Your task to perform on an android device: turn off priority inbox in the gmail app Image 0: 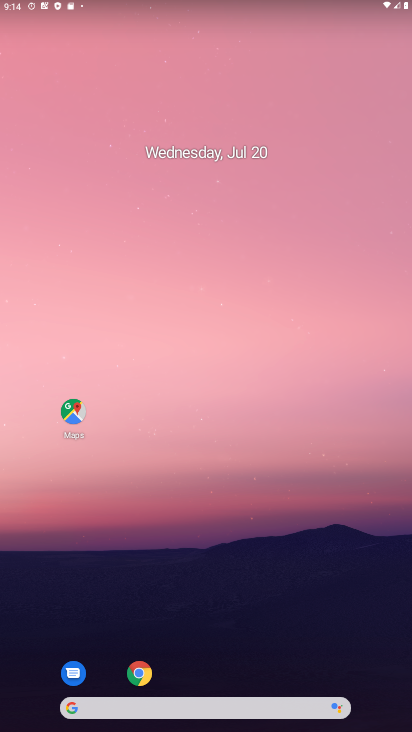
Step 0: drag from (337, 640) to (145, 4)
Your task to perform on an android device: turn off priority inbox in the gmail app Image 1: 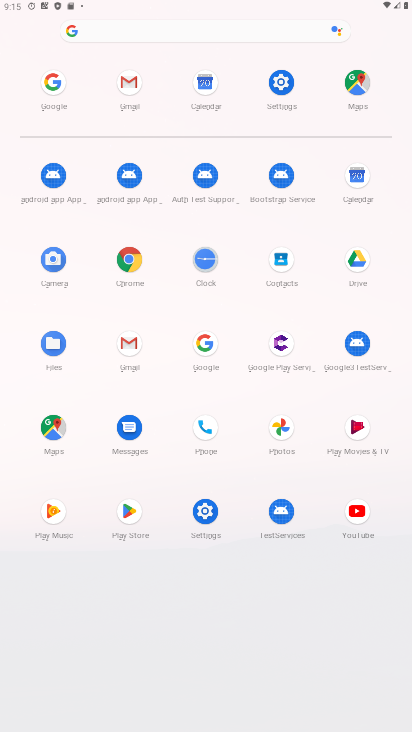
Step 1: click (126, 356)
Your task to perform on an android device: turn off priority inbox in the gmail app Image 2: 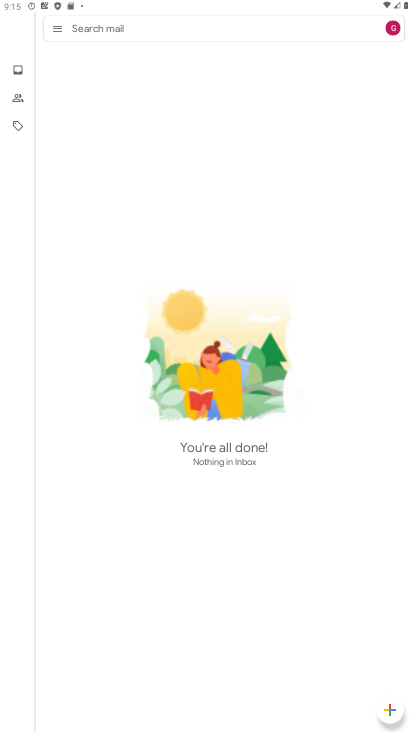
Step 2: click (54, 28)
Your task to perform on an android device: turn off priority inbox in the gmail app Image 3: 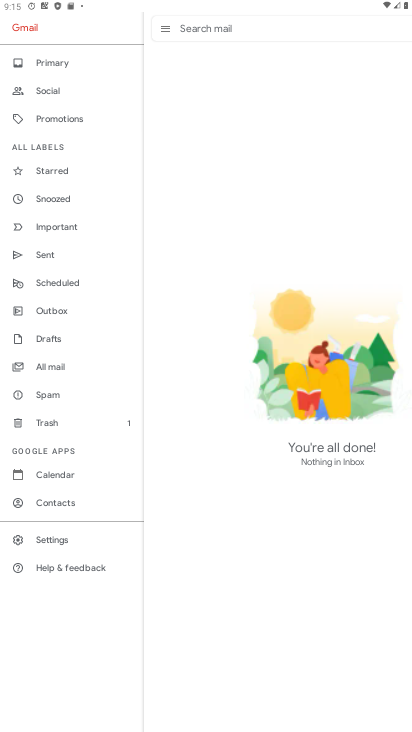
Step 3: click (36, 540)
Your task to perform on an android device: turn off priority inbox in the gmail app Image 4: 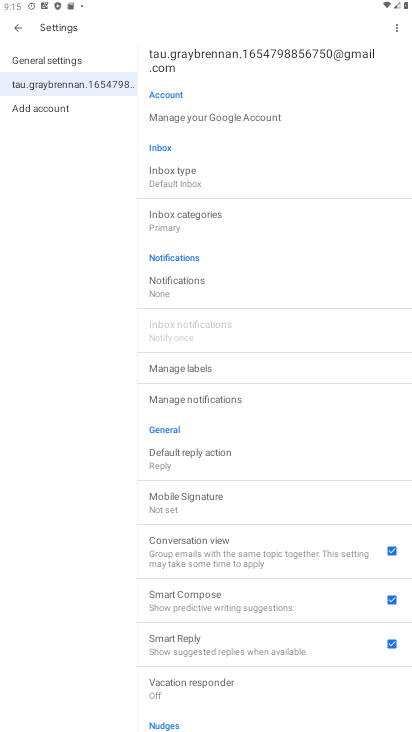
Step 4: click (188, 181)
Your task to perform on an android device: turn off priority inbox in the gmail app Image 5: 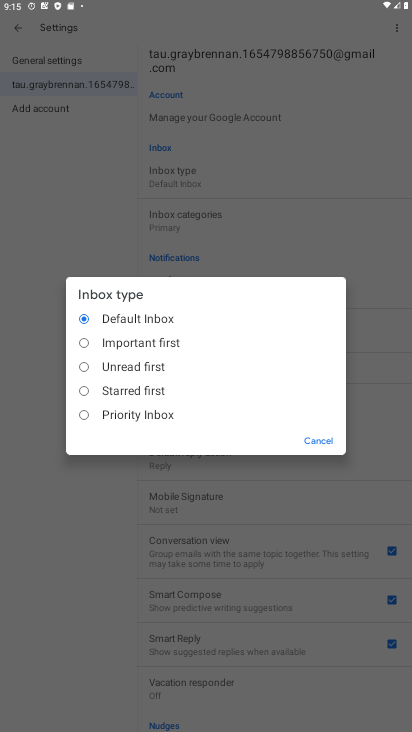
Step 5: task complete